Your task to perform on an android device: Check the news Image 0: 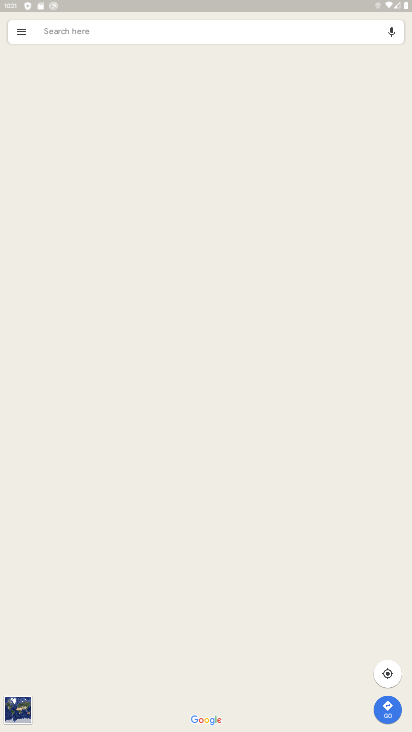
Step 0: press home button
Your task to perform on an android device: Check the news Image 1: 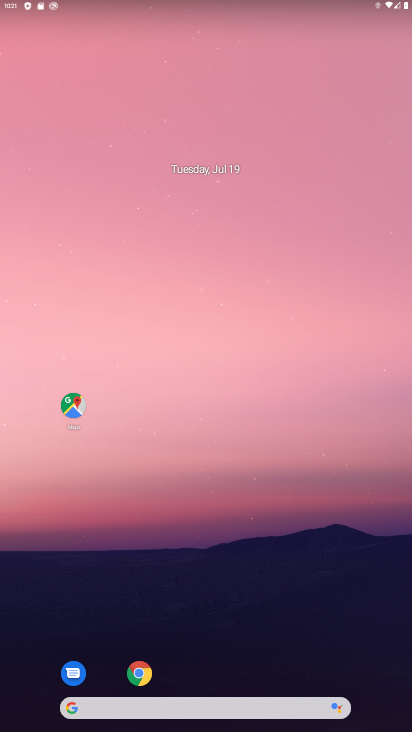
Step 1: task complete